Your task to perform on an android device: open app "PUBG MOBILE" (install if not already installed) Image 0: 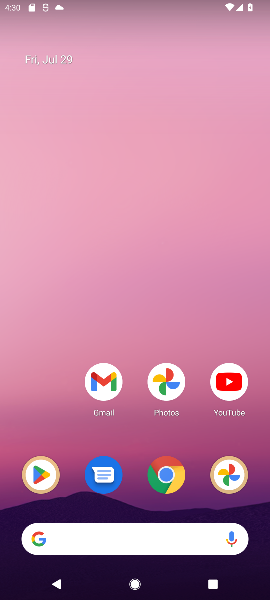
Step 0: click (28, 482)
Your task to perform on an android device: open app "PUBG MOBILE" (install if not already installed) Image 1: 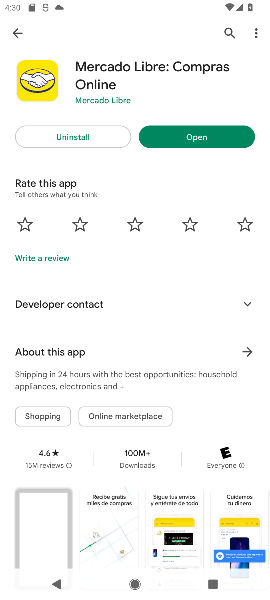
Step 1: click (227, 34)
Your task to perform on an android device: open app "PUBG MOBILE" (install if not already installed) Image 2: 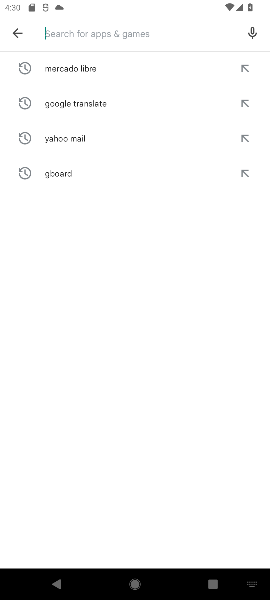
Step 2: type "PUBG MOBILE"
Your task to perform on an android device: open app "PUBG MOBILE" (install if not already installed) Image 3: 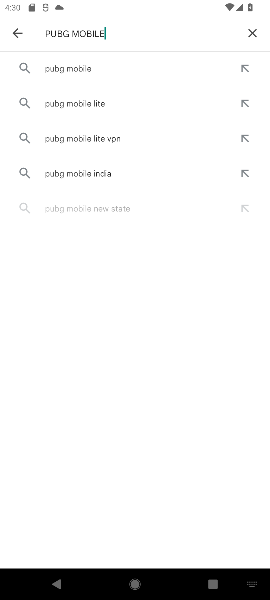
Step 3: type ""
Your task to perform on an android device: open app "PUBG MOBILE" (install if not already installed) Image 4: 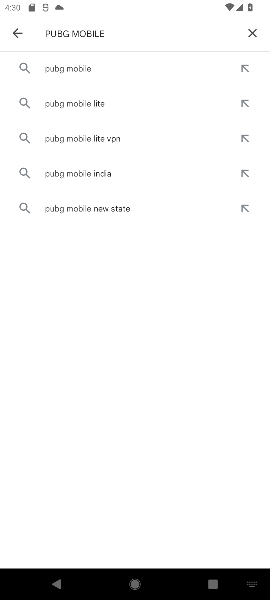
Step 4: click (72, 71)
Your task to perform on an android device: open app "PUBG MOBILE" (install if not already installed) Image 5: 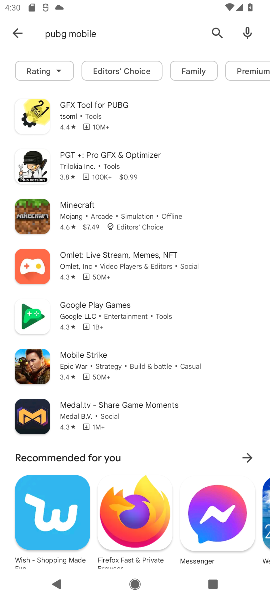
Step 5: task complete